Your task to perform on an android device: change notifications settings Image 0: 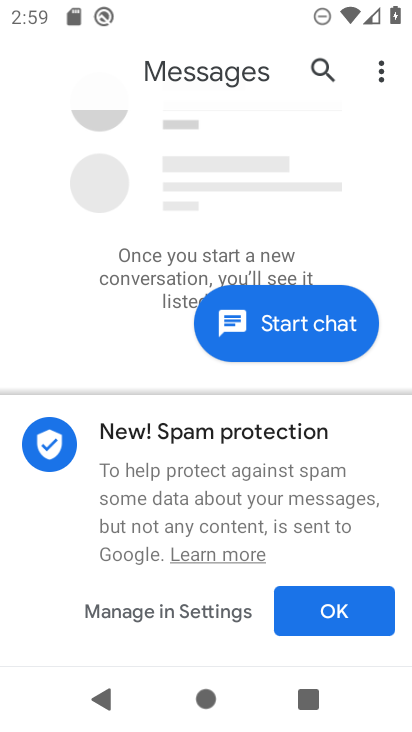
Step 0: press home button
Your task to perform on an android device: change notifications settings Image 1: 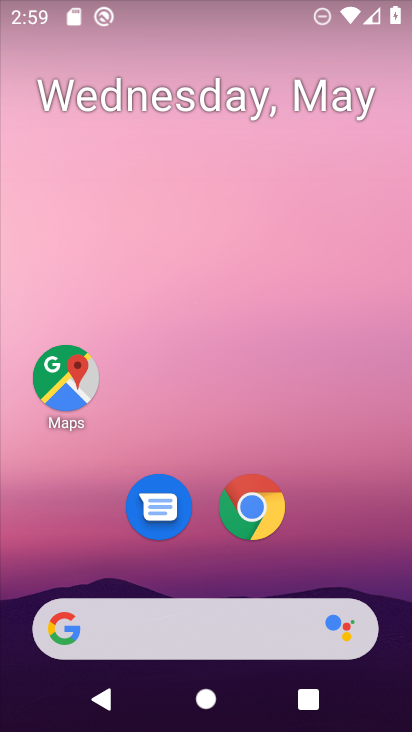
Step 1: drag from (211, 570) to (236, 41)
Your task to perform on an android device: change notifications settings Image 2: 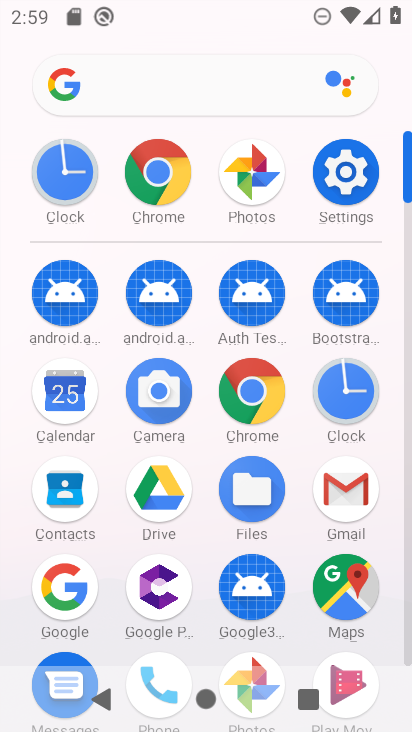
Step 2: click (341, 193)
Your task to perform on an android device: change notifications settings Image 3: 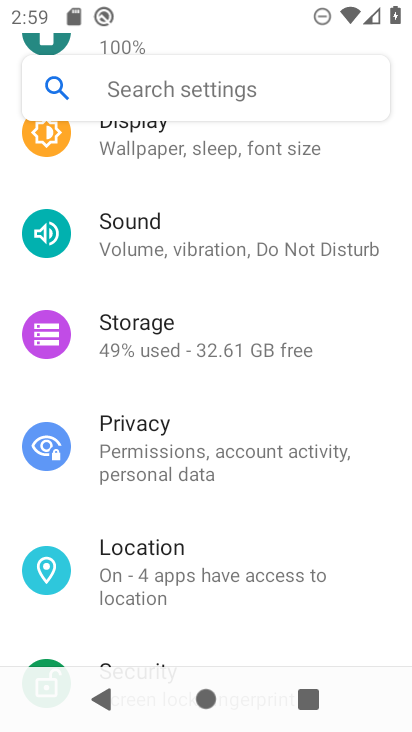
Step 3: drag from (242, 337) to (242, 516)
Your task to perform on an android device: change notifications settings Image 4: 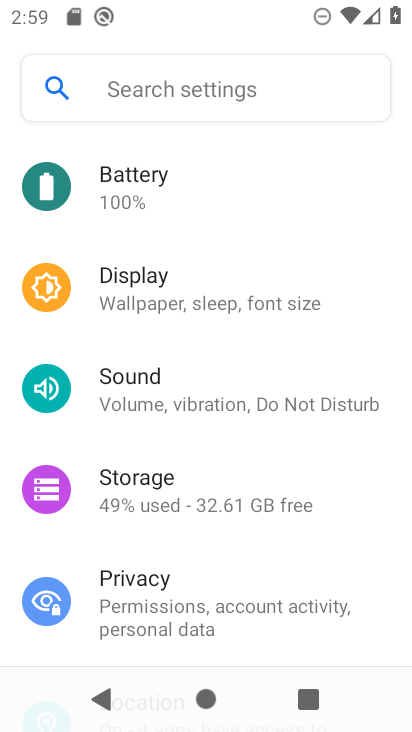
Step 4: drag from (187, 290) to (199, 598)
Your task to perform on an android device: change notifications settings Image 5: 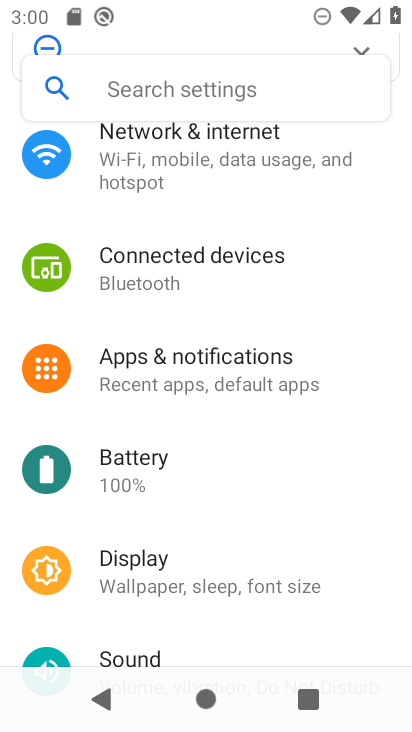
Step 5: click (222, 370)
Your task to perform on an android device: change notifications settings Image 6: 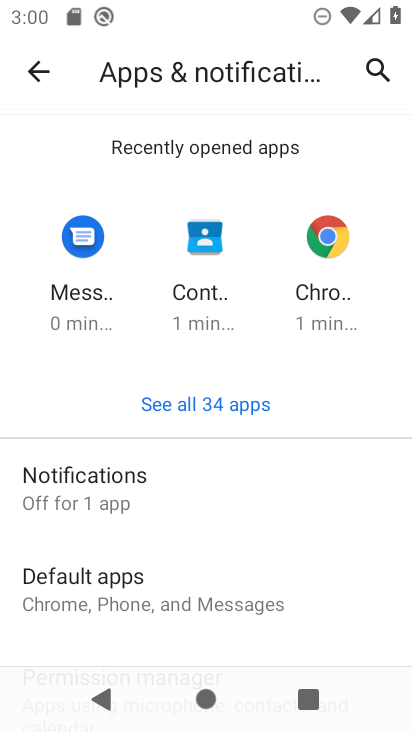
Step 6: click (112, 483)
Your task to perform on an android device: change notifications settings Image 7: 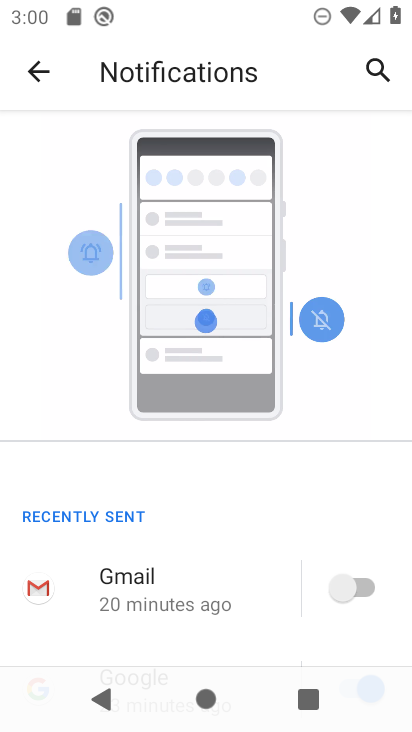
Step 7: drag from (143, 579) to (191, 305)
Your task to perform on an android device: change notifications settings Image 8: 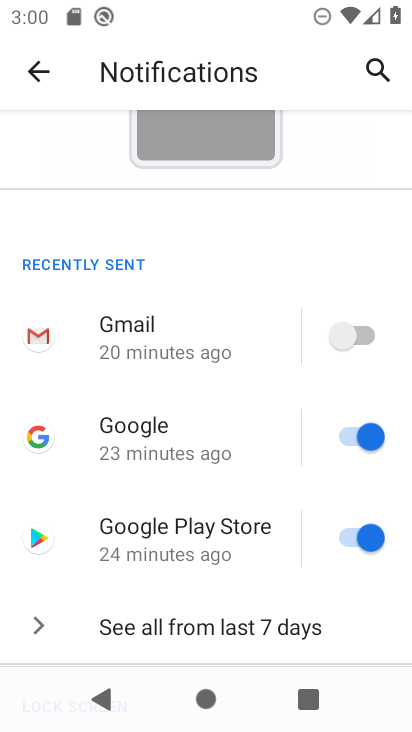
Step 8: click (164, 617)
Your task to perform on an android device: change notifications settings Image 9: 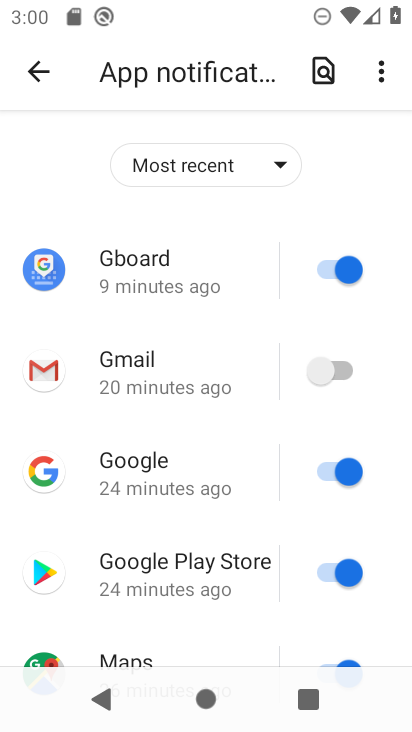
Step 9: click (318, 271)
Your task to perform on an android device: change notifications settings Image 10: 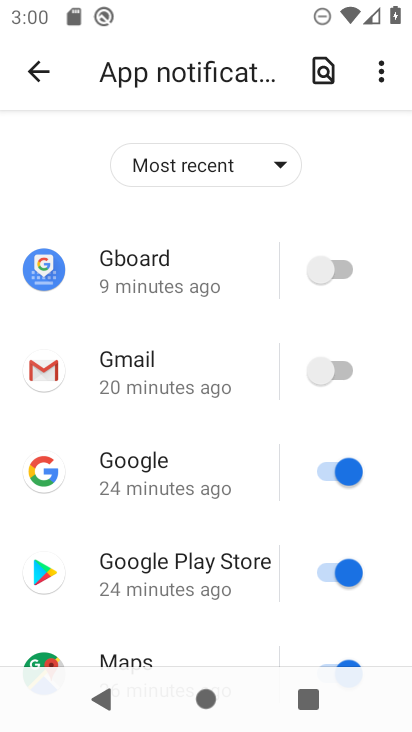
Step 10: click (325, 456)
Your task to perform on an android device: change notifications settings Image 11: 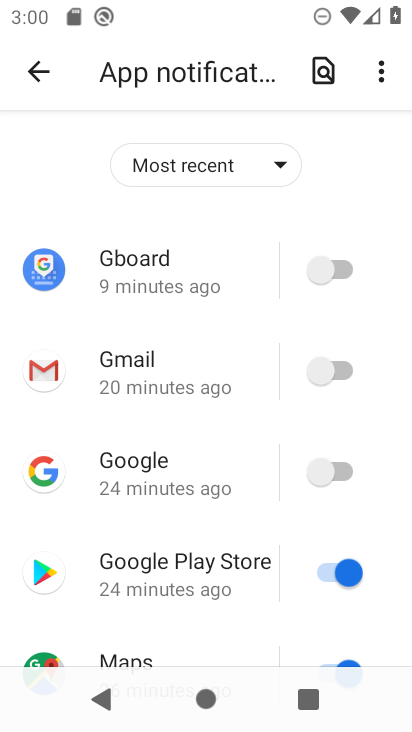
Step 11: drag from (251, 468) to (290, 159)
Your task to perform on an android device: change notifications settings Image 12: 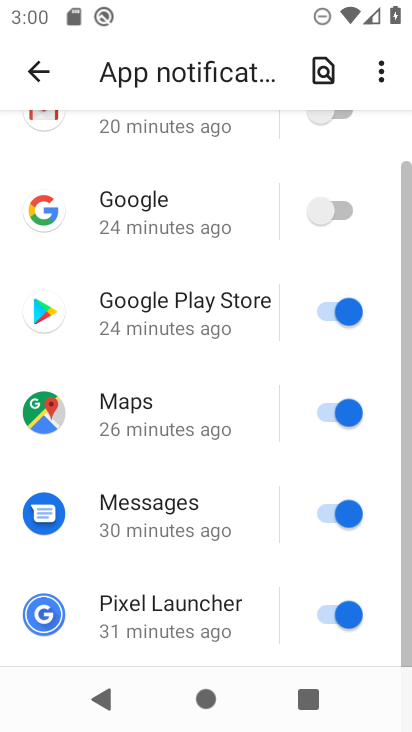
Step 12: click (317, 299)
Your task to perform on an android device: change notifications settings Image 13: 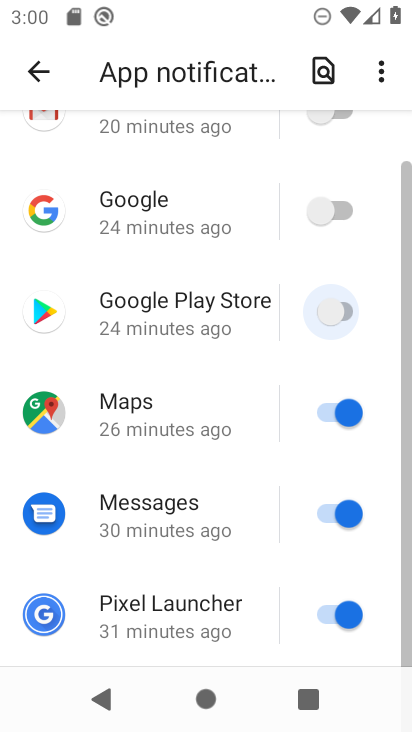
Step 13: click (319, 419)
Your task to perform on an android device: change notifications settings Image 14: 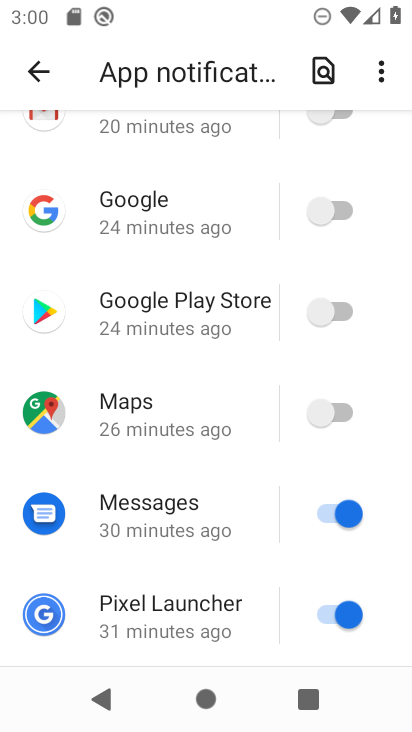
Step 14: click (331, 518)
Your task to perform on an android device: change notifications settings Image 15: 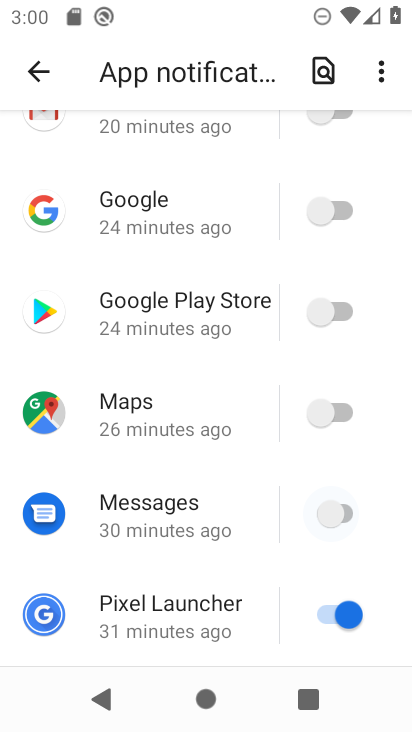
Step 15: click (323, 618)
Your task to perform on an android device: change notifications settings Image 16: 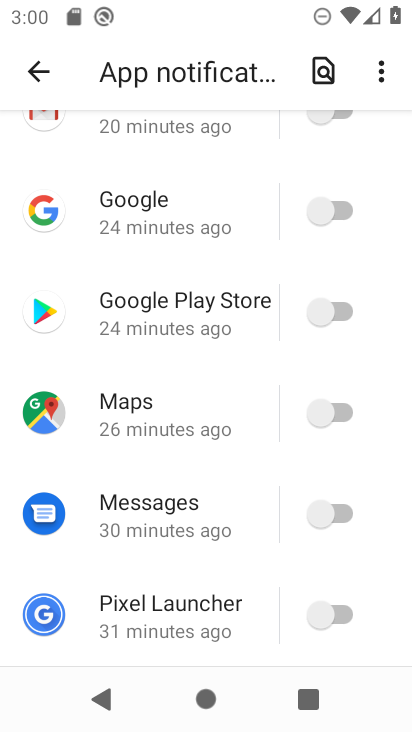
Step 16: task complete